Your task to perform on an android device: toggle notification dots Image 0: 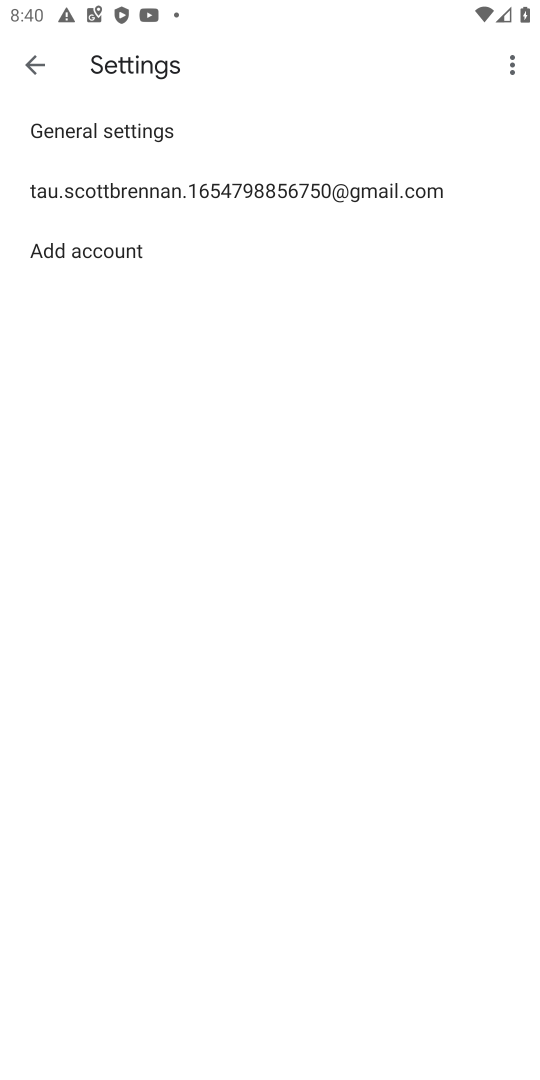
Step 0: press home button
Your task to perform on an android device: toggle notification dots Image 1: 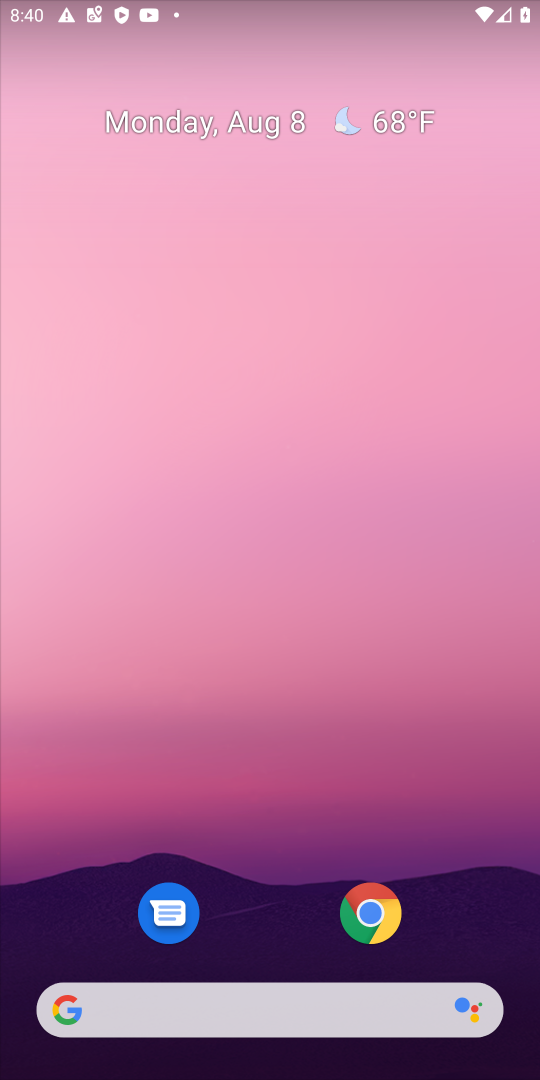
Step 1: drag from (251, 1016) to (304, 157)
Your task to perform on an android device: toggle notification dots Image 2: 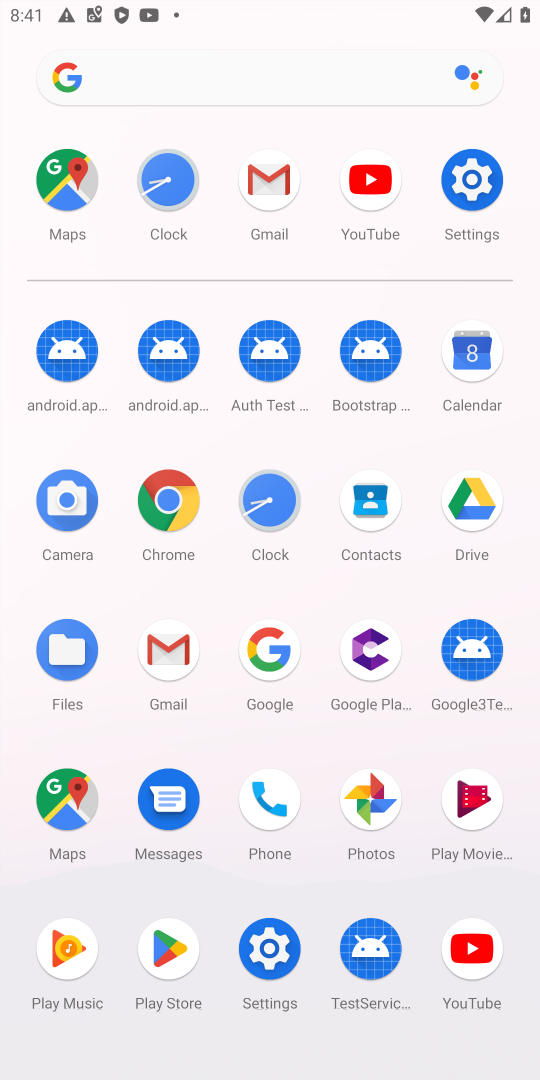
Step 2: click (473, 176)
Your task to perform on an android device: toggle notification dots Image 3: 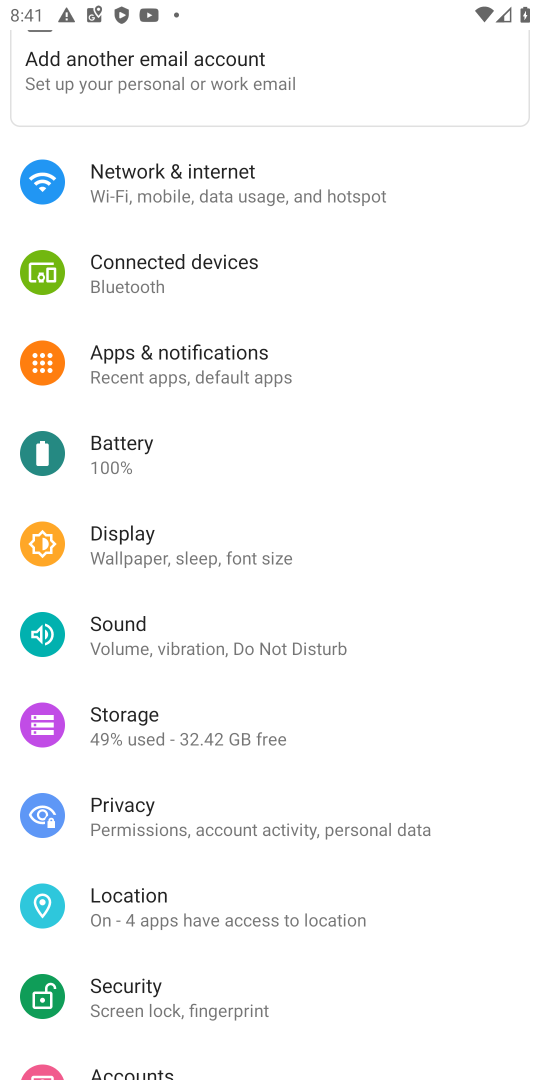
Step 3: click (224, 348)
Your task to perform on an android device: toggle notification dots Image 4: 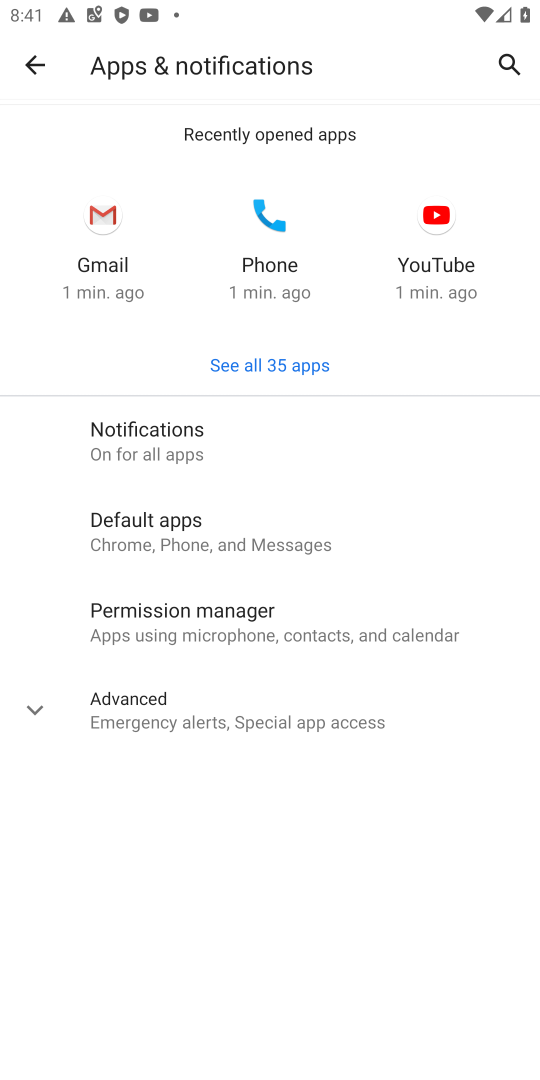
Step 4: click (190, 459)
Your task to perform on an android device: toggle notification dots Image 5: 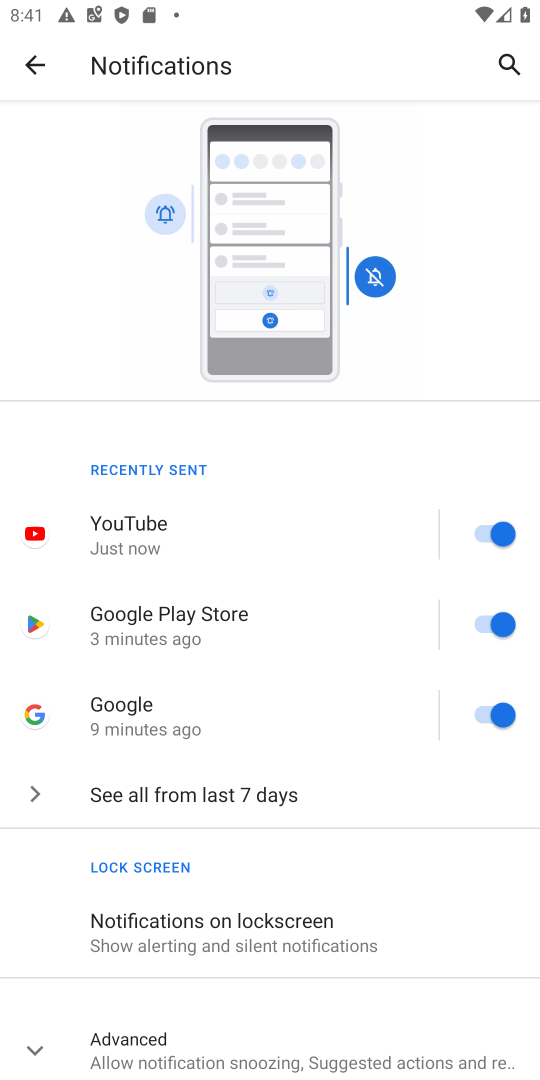
Step 5: drag from (201, 856) to (239, 687)
Your task to perform on an android device: toggle notification dots Image 6: 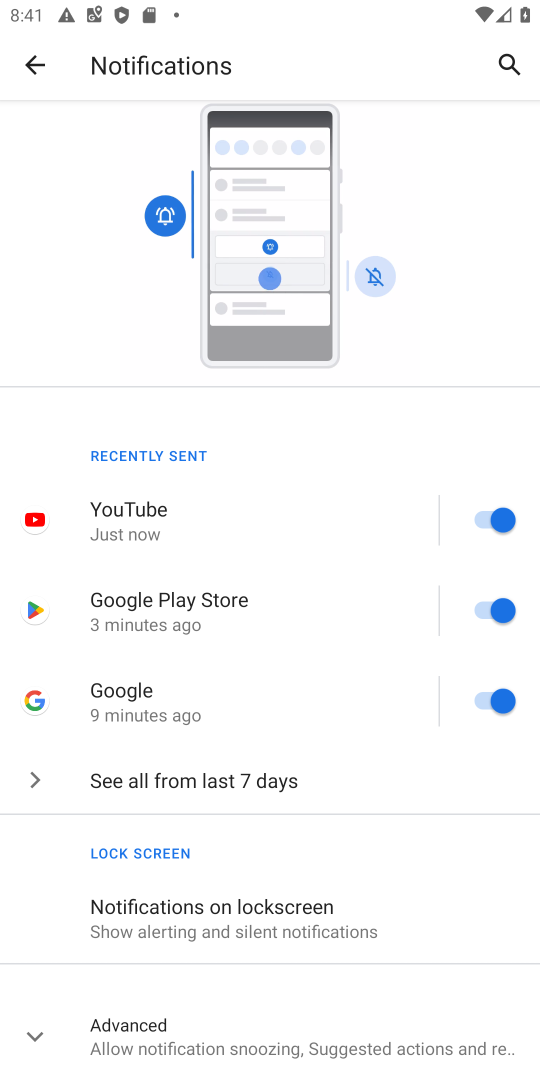
Step 6: click (307, 1045)
Your task to perform on an android device: toggle notification dots Image 7: 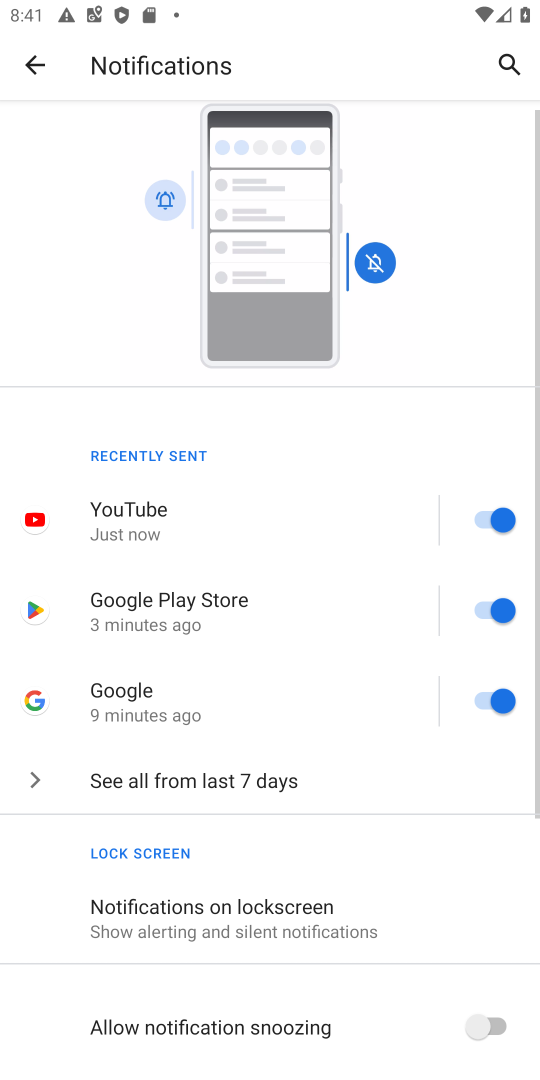
Step 7: drag from (294, 983) to (350, 717)
Your task to perform on an android device: toggle notification dots Image 8: 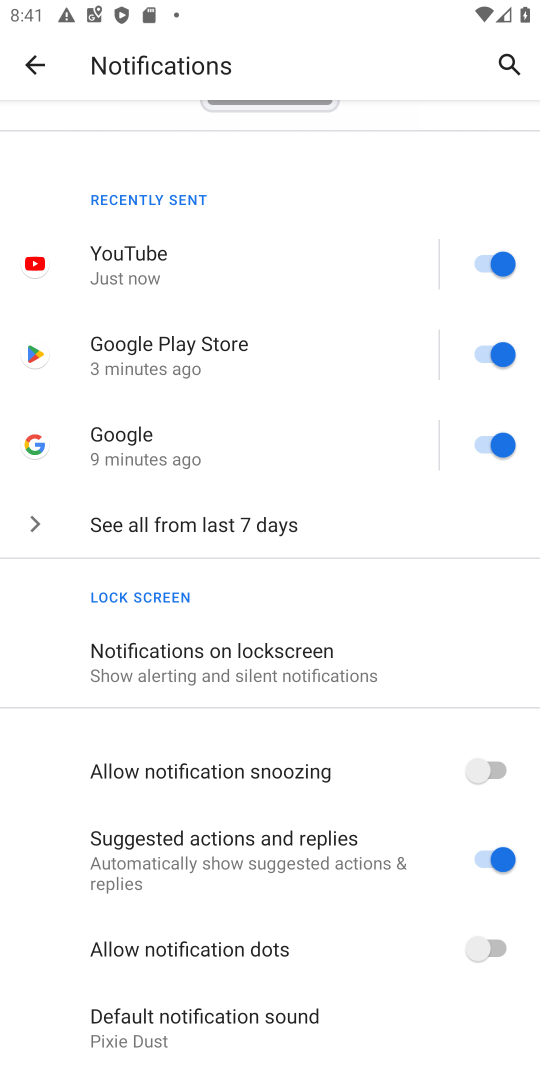
Step 8: click (476, 950)
Your task to perform on an android device: toggle notification dots Image 9: 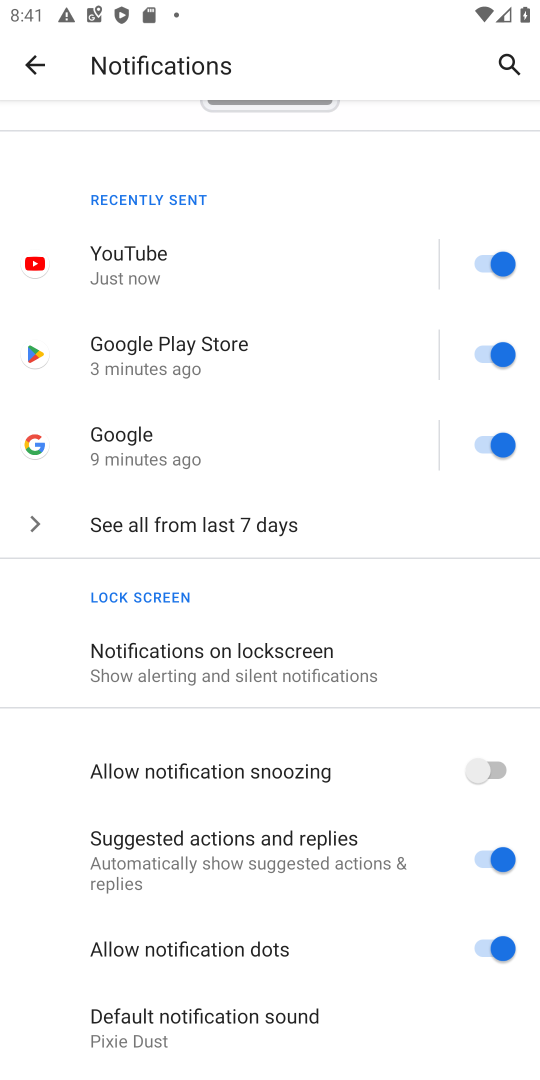
Step 9: task complete